Your task to perform on an android device: turn pop-ups on in chrome Image 0: 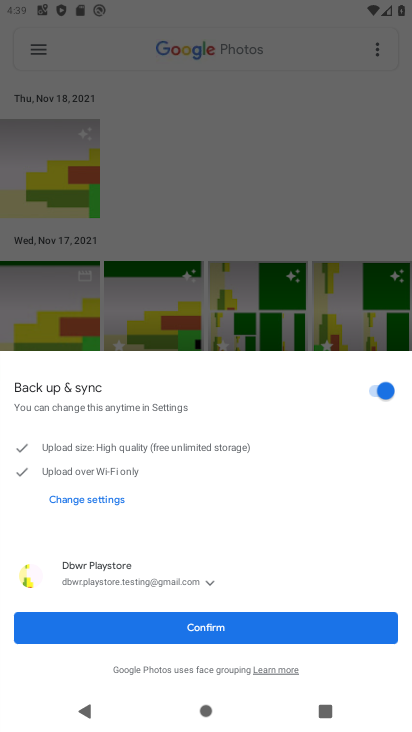
Step 0: press home button
Your task to perform on an android device: turn pop-ups on in chrome Image 1: 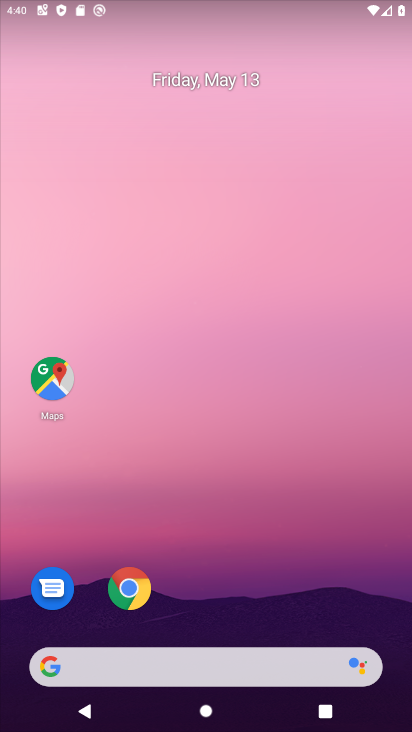
Step 1: click (128, 589)
Your task to perform on an android device: turn pop-ups on in chrome Image 2: 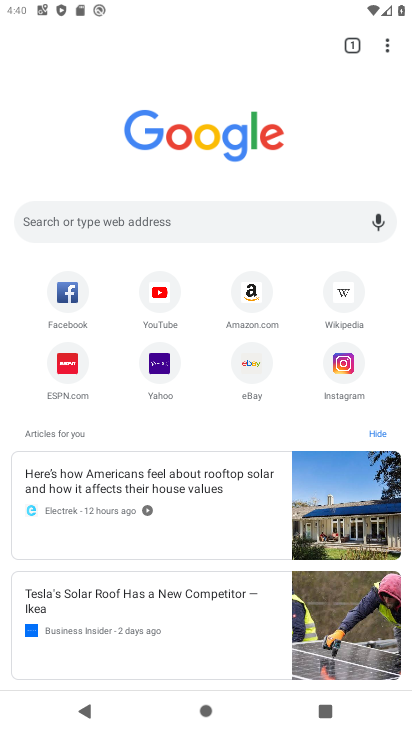
Step 2: click (399, 41)
Your task to perform on an android device: turn pop-ups on in chrome Image 3: 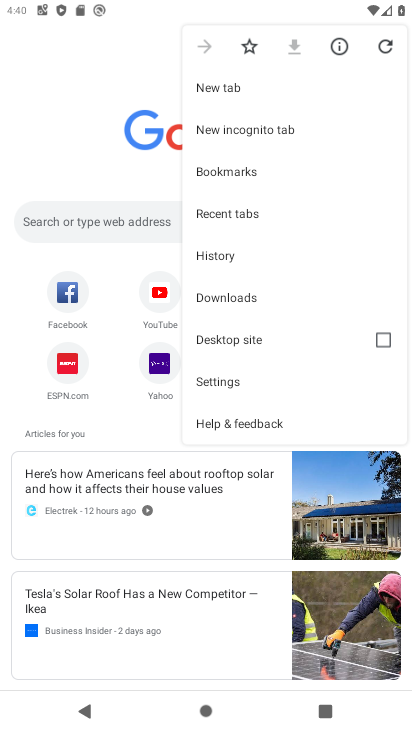
Step 3: click (257, 385)
Your task to perform on an android device: turn pop-ups on in chrome Image 4: 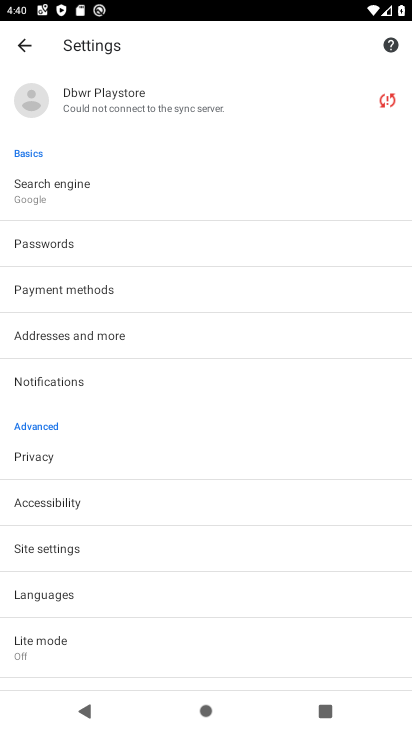
Step 4: click (99, 551)
Your task to perform on an android device: turn pop-ups on in chrome Image 5: 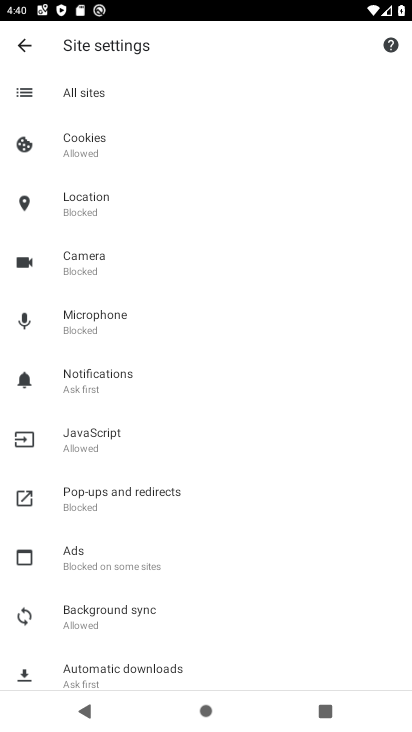
Step 5: click (111, 501)
Your task to perform on an android device: turn pop-ups on in chrome Image 6: 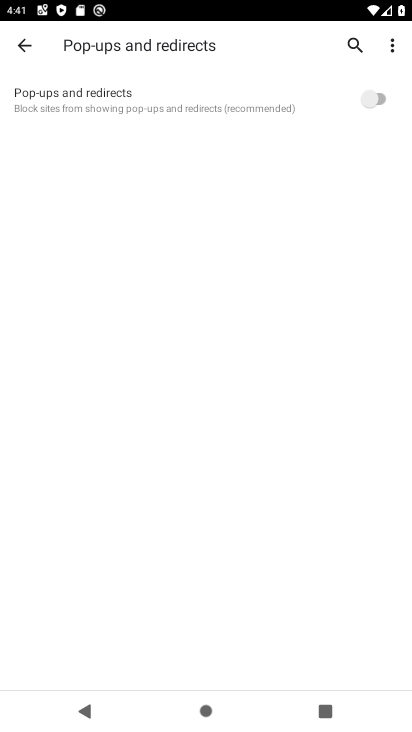
Step 6: press home button
Your task to perform on an android device: turn pop-ups on in chrome Image 7: 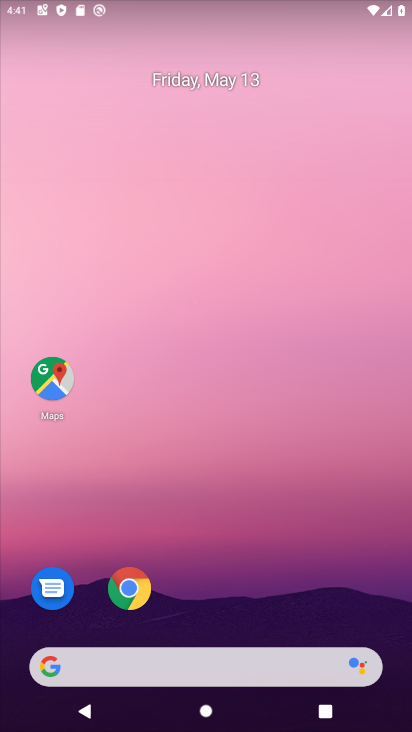
Step 7: click (133, 588)
Your task to perform on an android device: turn pop-ups on in chrome Image 8: 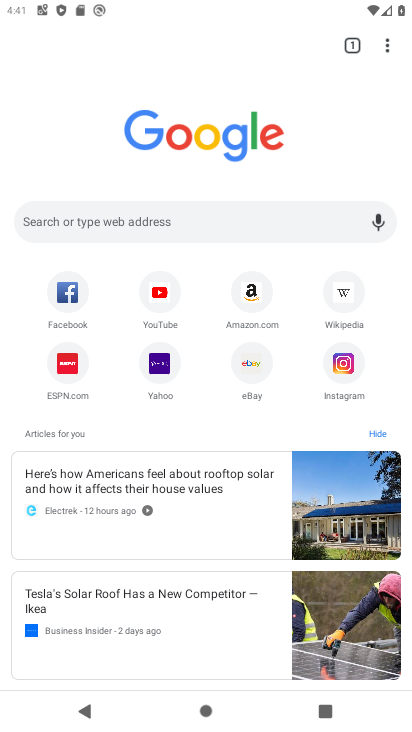
Step 8: click (393, 39)
Your task to perform on an android device: turn pop-ups on in chrome Image 9: 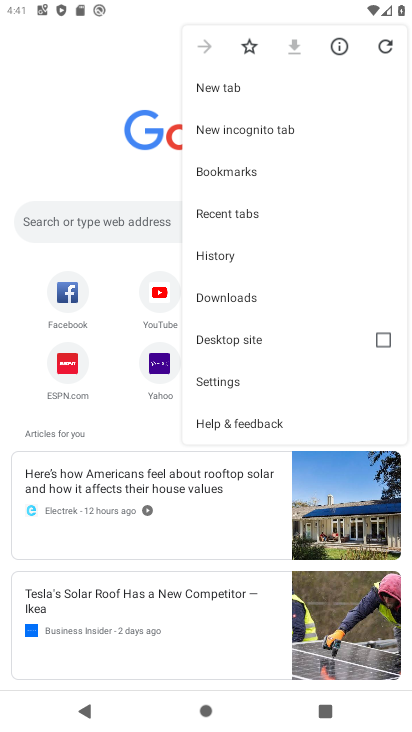
Step 9: click (236, 380)
Your task to perform on an android device: turn pop-ups on in chrome Image 10: 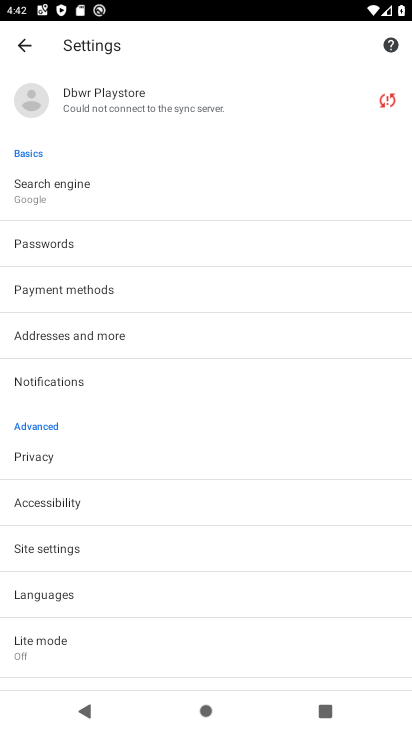
Step 10: click (70, 551)
Your task to perform on an android device: turn pop-ups on in chrome Image 11: 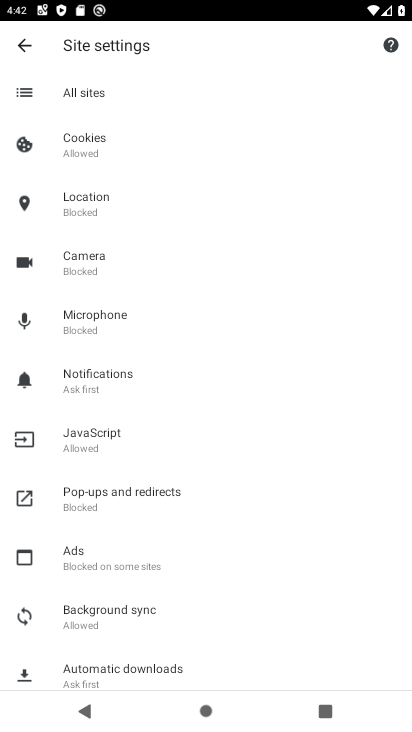
Step 11: click (118, 507)
Your task to perform on an android device: turn pop-ups on in chrome Image 12: 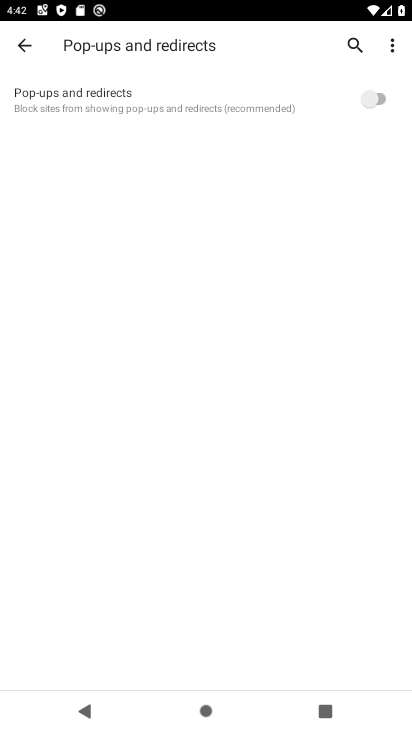
Step 12: click (379, 93)
Your task to perform on an android device: turn pop-ups on in chrome Image 13: 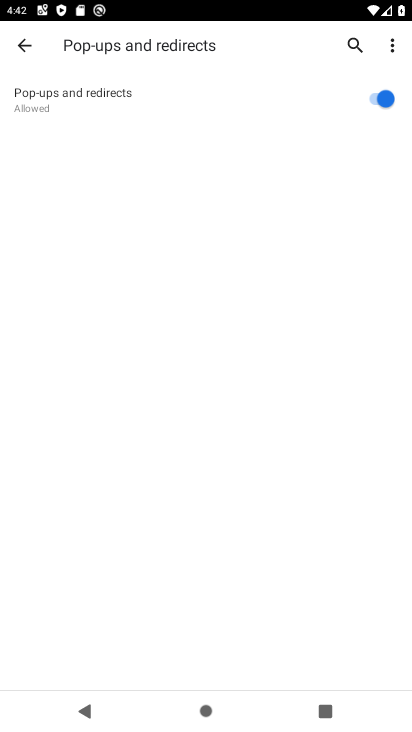
Step 13: task complete